Your task to perform on an android device: change the clock display to analog Image 0: 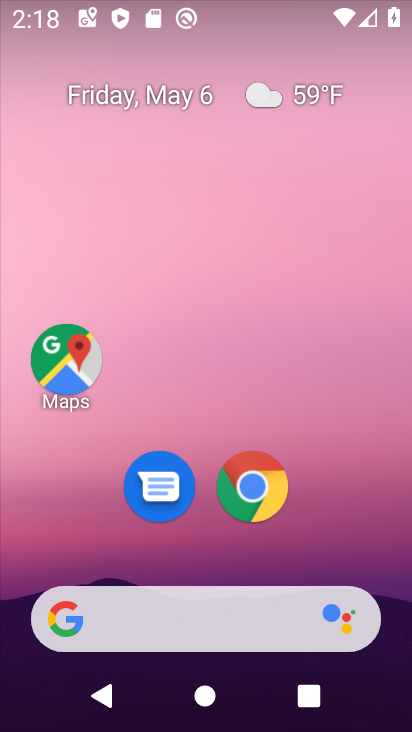
Step 0: drag from (312, 545) to (210, 19)
Your task to perform on an android device: change the clock display to analog Image 1: 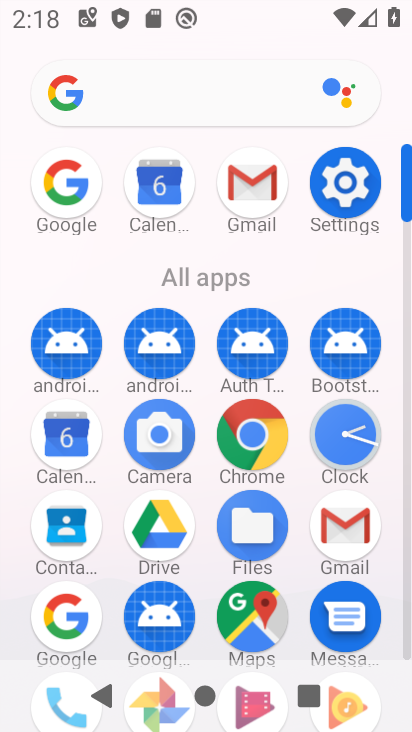
Step 1: click (337, 435)
Your task to perform on an android device: change the clock display to analog Image 2: 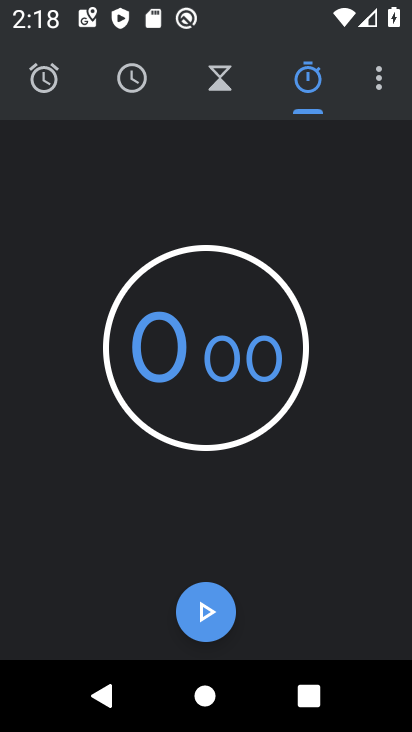
Step 2: click (391, 74)
Your task to perform on an android device: change the clock display to analog Image 3: 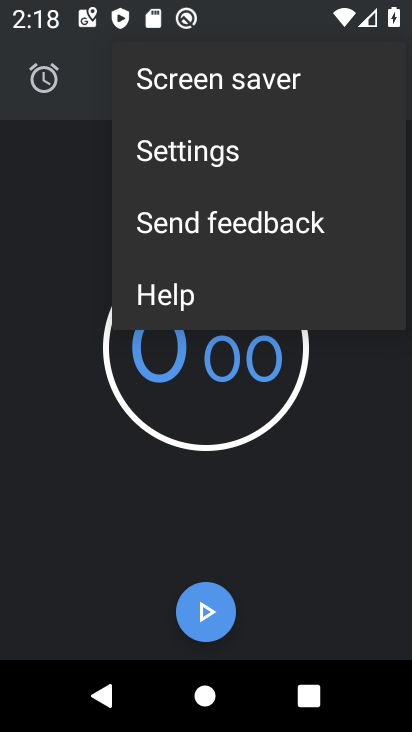
Step 3: click (216, 155)
Your task to perform on an android device: change the clock display to analog Image 4: 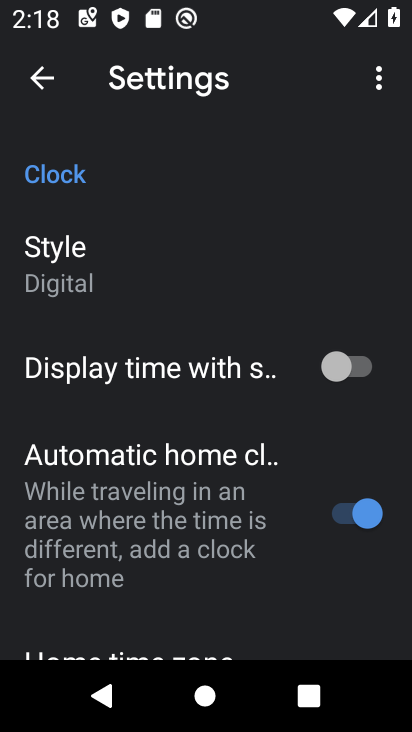
Step 4: click (66, 264)
Your task to perform on an android device: change the clock display to analog Image 5: 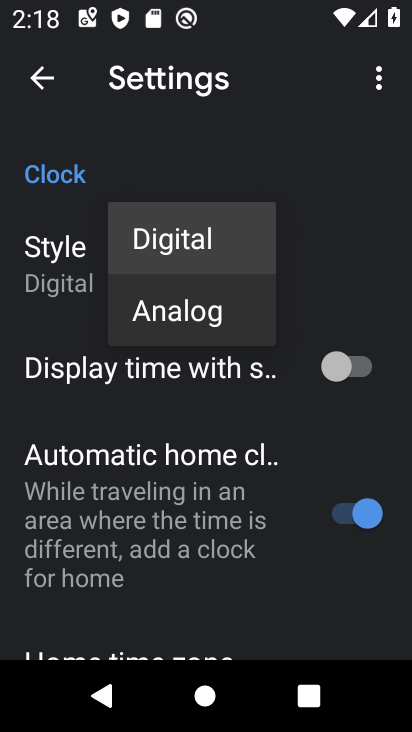
Step 5: click (163, 303)
Your task to perform on an android device: change the clock display to analog Image 6: 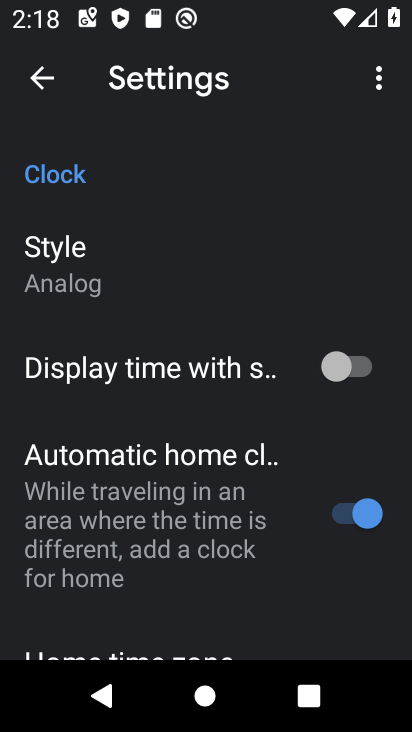
Step 6: task complete